Your task to perform on an android device: star an email in the gmail app Image 0: 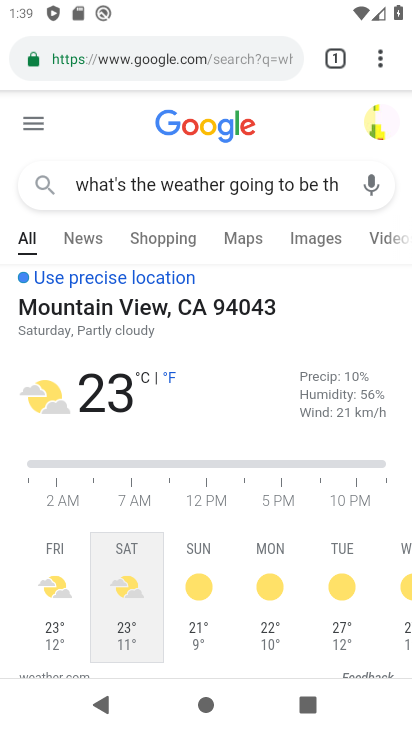
Step 0: press home button
Your task to perform on an android device: star an email in the gmail app Image 1: 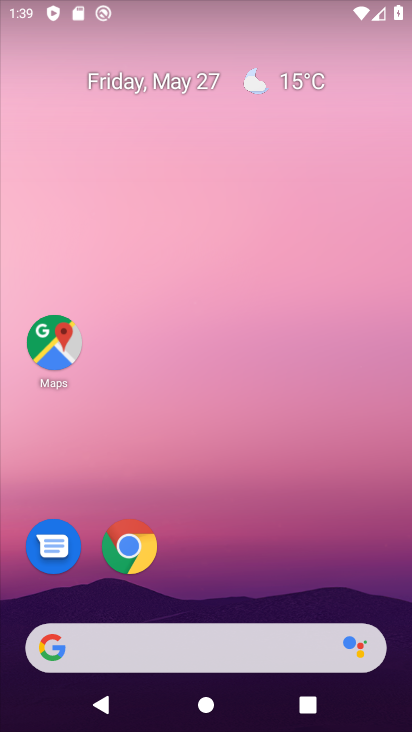
Step 1: drag from (385, 605) to (325, 194)
Your task to perform on an android device: star an email in the gmail app Image 2: 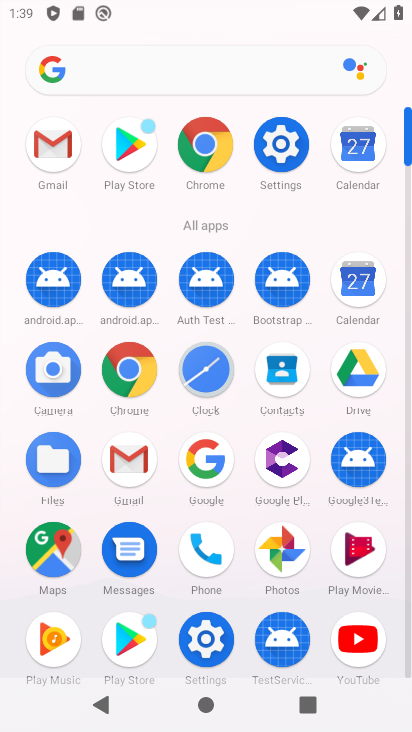
Step 2: click (125, 467)
Your task to perform on an android device: star an email in the gmail app Image 3: 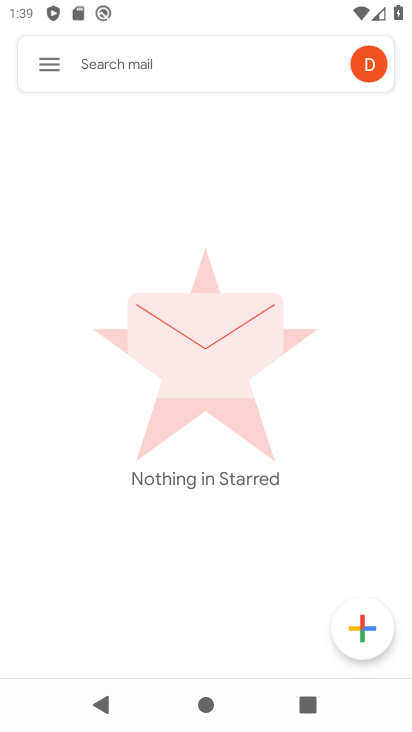
Step 3: task complete